Your task to perform on an android device: Do I have any events this weekend? Image 0: 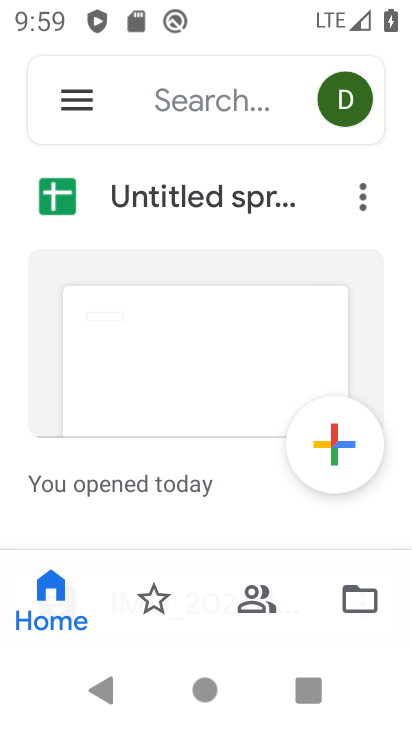
Step 0: press home button
Your task to perform on an android device: Do I have any events this weekend? Image 1: 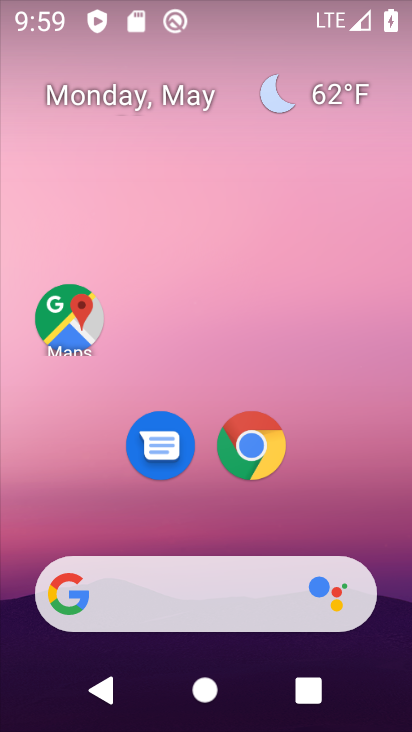
Step 1: drag from (403, 626) to (301, 95)
Your task to perform on an android device: Do I have any events this weekend? Image 2: 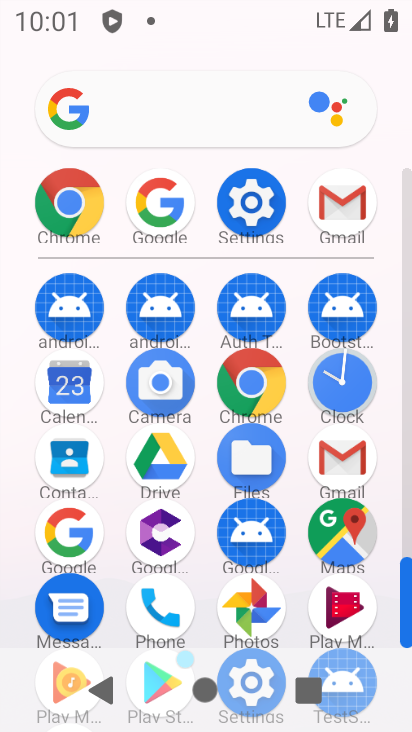
Step 2: click (92, 390)
Your task to perform on an android device: Do I have any events this weekend? Image 3: 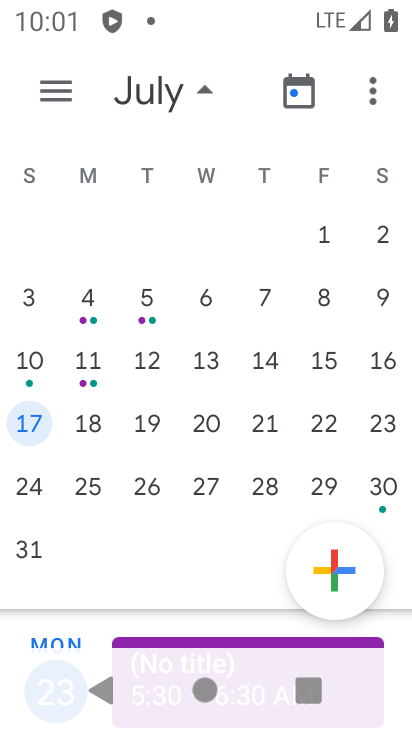
Step 3: task complete